Your task to perform on an android device: Find coffee shops on Maps Image 0: 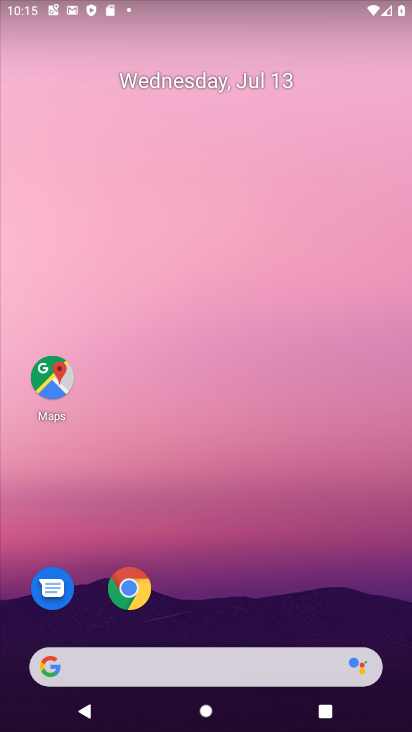
Step 0: drag from (218, 634) to (218, 139)
Your task to perform on an android device: Find coffee shops on Maps Image 1: 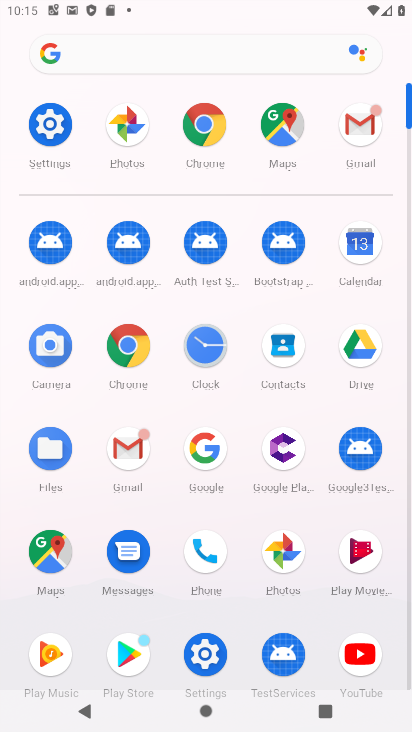
Step 1: click (41, 551)
Your task to perform on an android device: Find coffee shops on Maps Image 2: 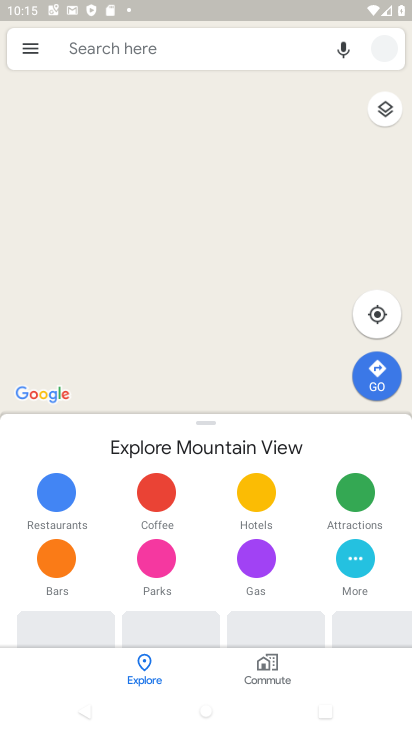
Step 2: click (92, 60)
Your task to perform on an android device: Find coffee shops on Maps Image 3: 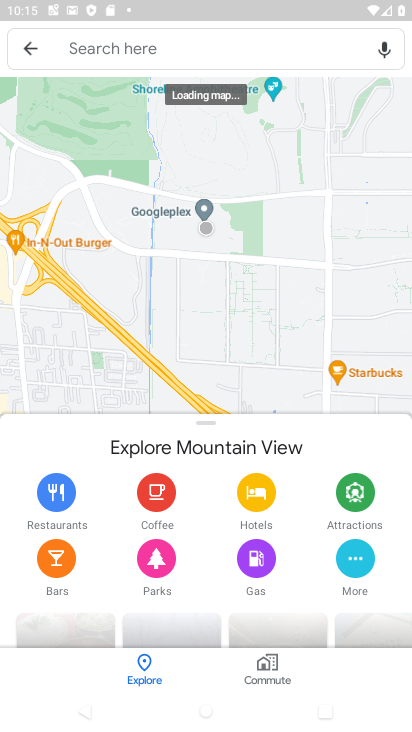
Step 3: click (120, 61)
Your task to perform on an android device: Find coffee shops on Maps Image 4: 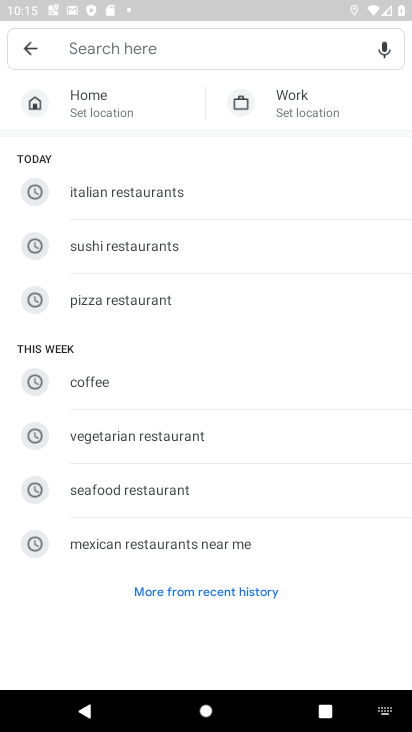
Step 4: click (93, 381)
Your task to perform on an android device: Find coffee shops on Maps Image 5: 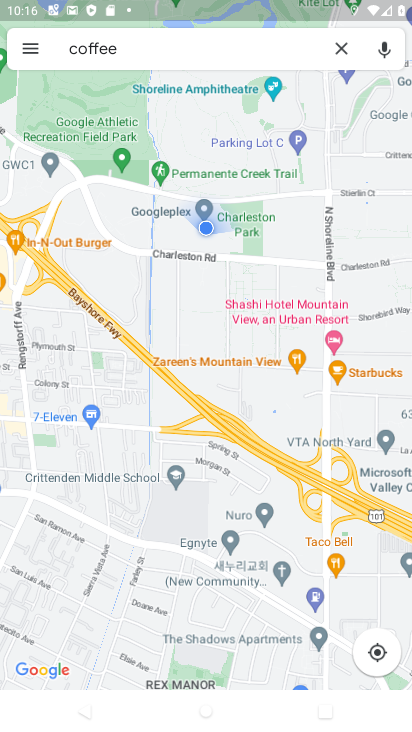
Step 5: task complete